Your task to perform on an android device: Go to calendar. Show me events next week Image 0: 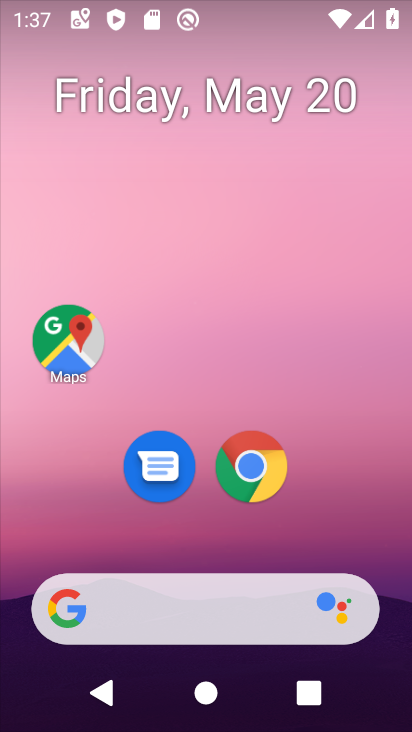
Step 0: drag from (209, 566) to (206, 25)
Your task to perform on an android device: Go to calendar. Show me events next week Image 1: 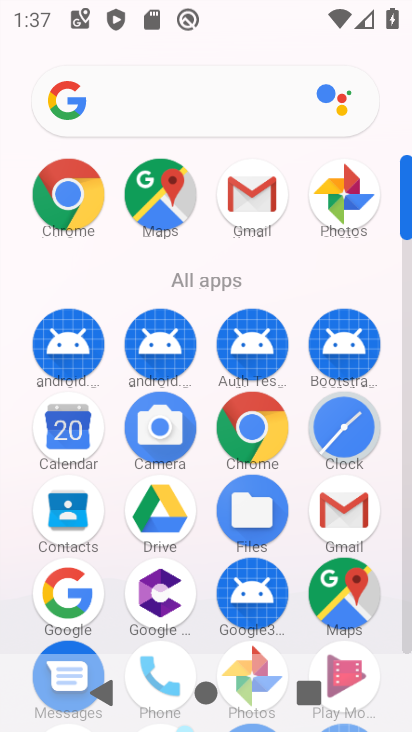
Step 1: click (47, 442)
Your task to perform on an android device: Go to calendar. Show me events next week Image 2: 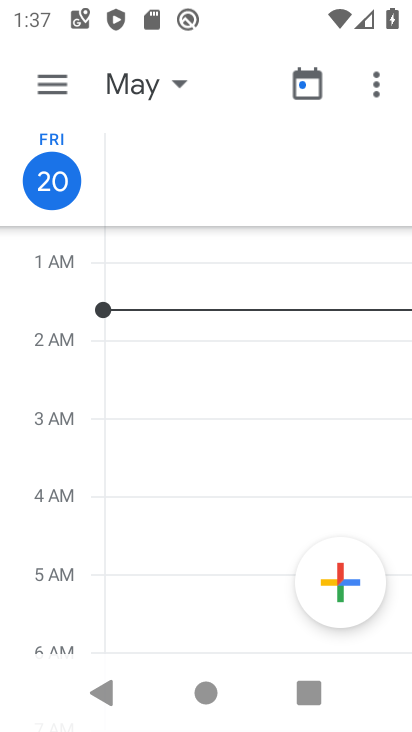
Step 2: click (39, 97)
Your task to perform on an android device: Go to calendar. Show me events next week Image 3: 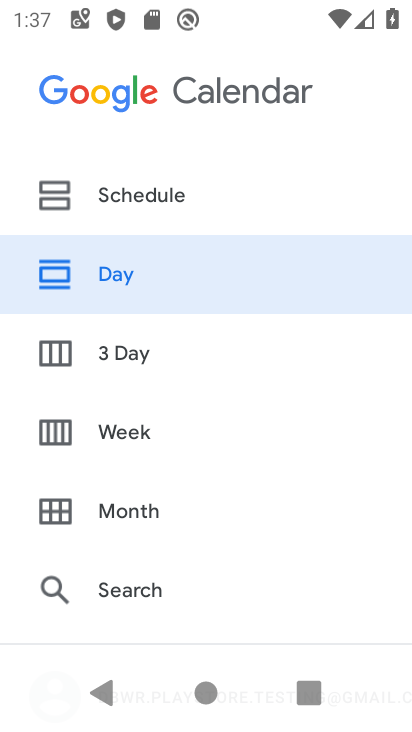
Step 3: click (91, 398)
Your task to perform on an android device: Go to calendar. Show me events next week Image 4: 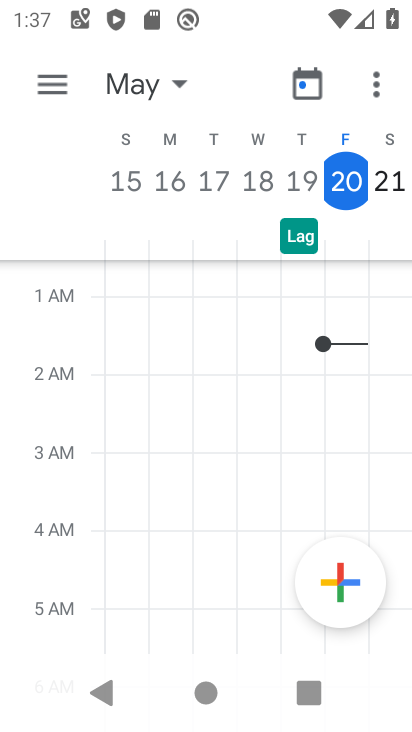
Step 4: task complete